Your task to perform on an android device: turn on the 24-hour format for clock Image 0: 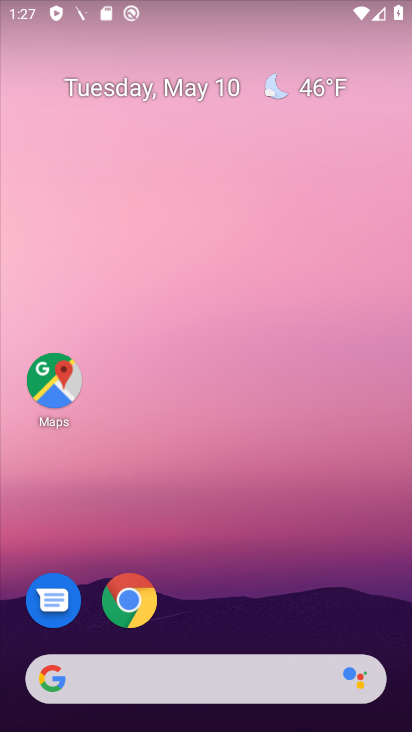
Step 0: drag from (203, 655) to (175, 98)
Your task to perform on an android device: turn on the 24-hour format for clock Image 1: 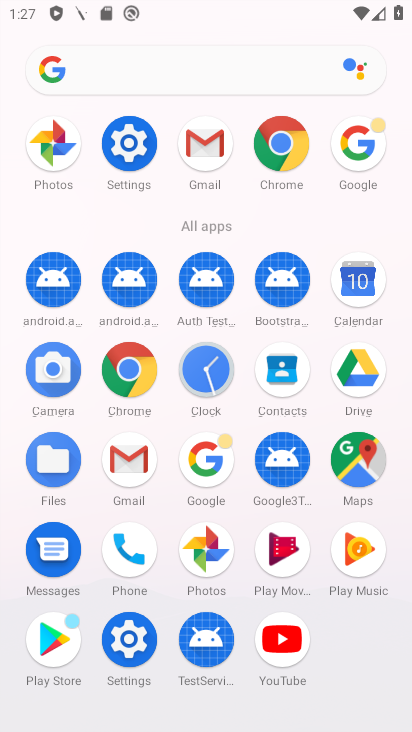
Step 1: click (208, 386)
Your task to perform on an android device: turn on the 24-hour format for clock Image 2: 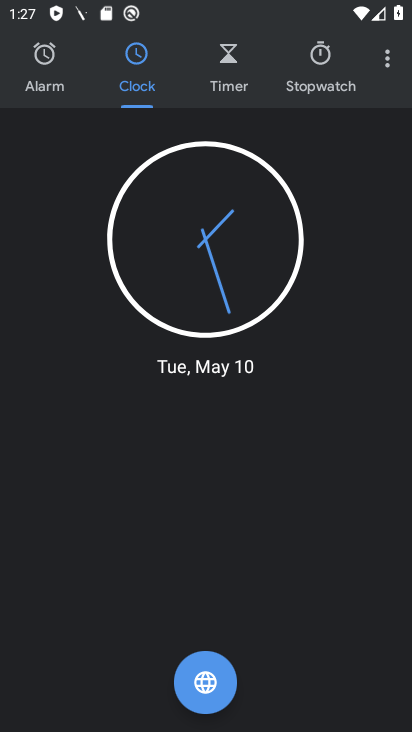
Step 2: click (391, 63)
Your task to perform on an android device: turn on the 24-hour format for clock Image 3: 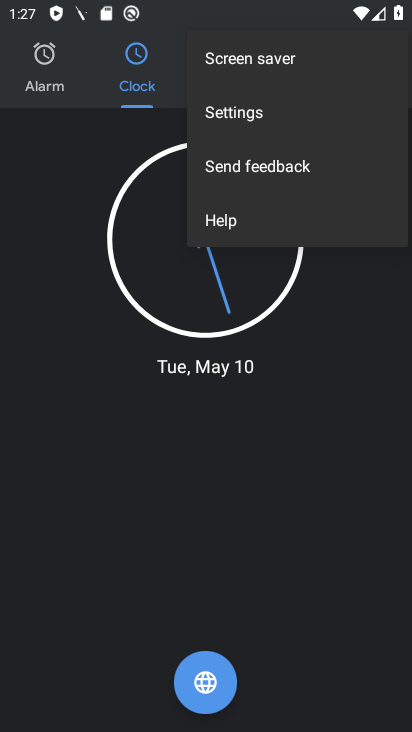
Step 3: click (255, 128)
Your task to perform on an android device: turn on the 24-hour format for clock Image 4: 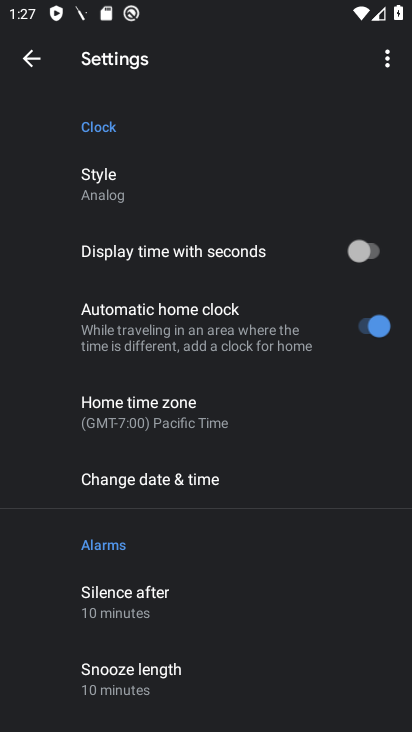
Step 4: click (165, 489)
Your task to perform on an android device: turn on the 24-hour format for clock Image 5: 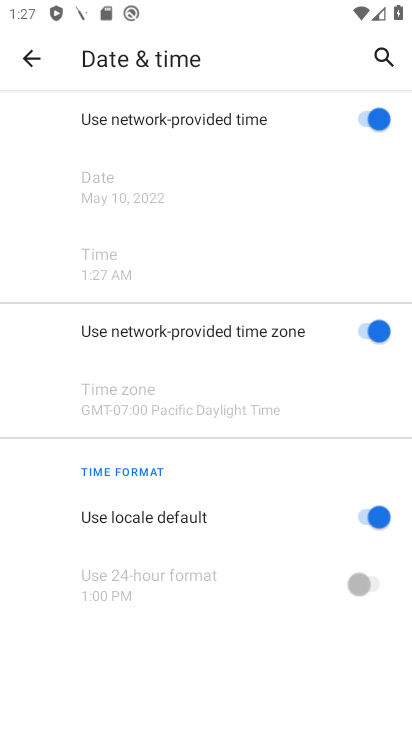
Step 5: click (377, 510)
Your task to perform on an android device: turn on the 24-hour format for clock Image 6: 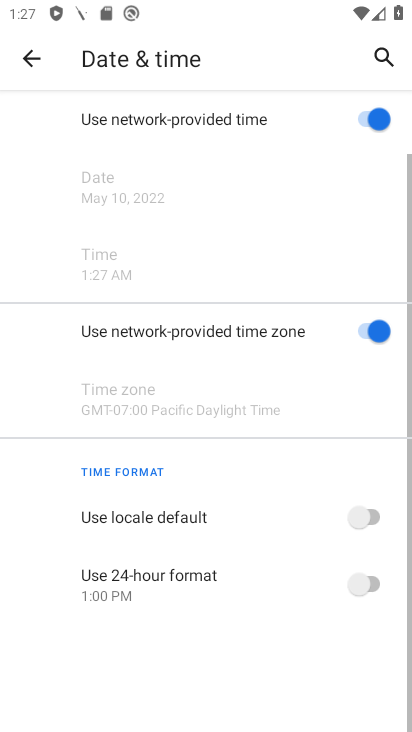
Step 6: click (373, 565)
Your task to perform on an android device: turn on the 24-hour format for clock Image 7: 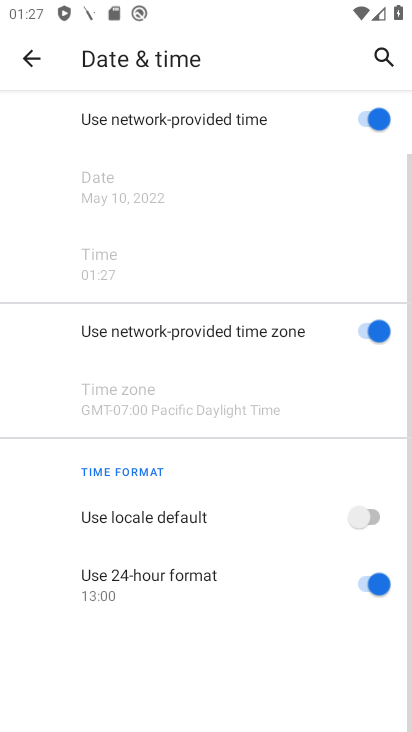
Step 7: task complete